Your task to perform on an android device: open app "Speedtest by Ookla" (install if not already installed) Image 0: 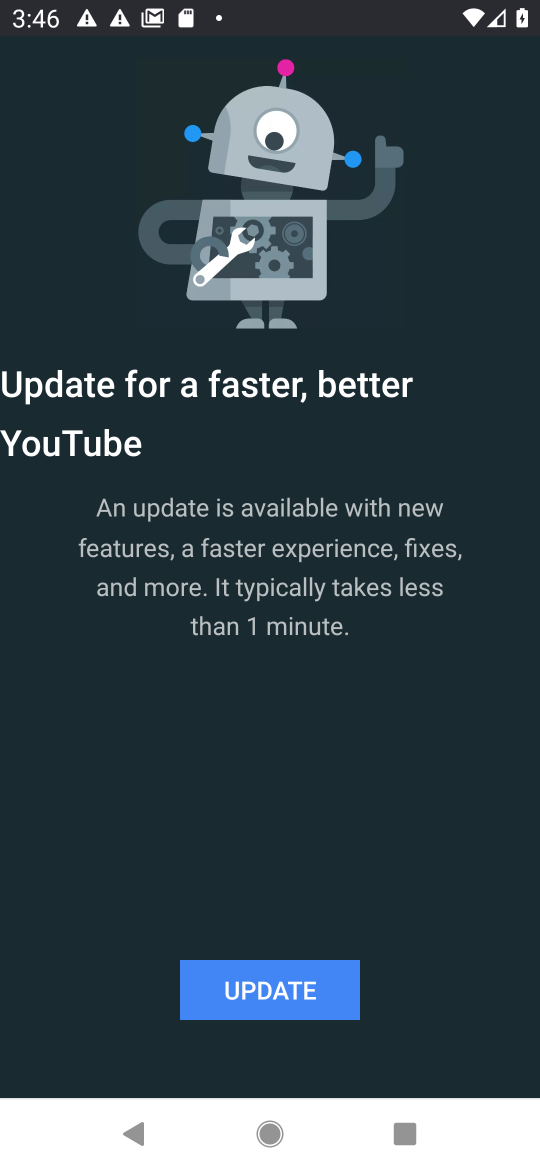
Step 0: press home button
Your task to perform on an android device: open app "Speedtest by Ookla" (install if not already installed) Image 1: 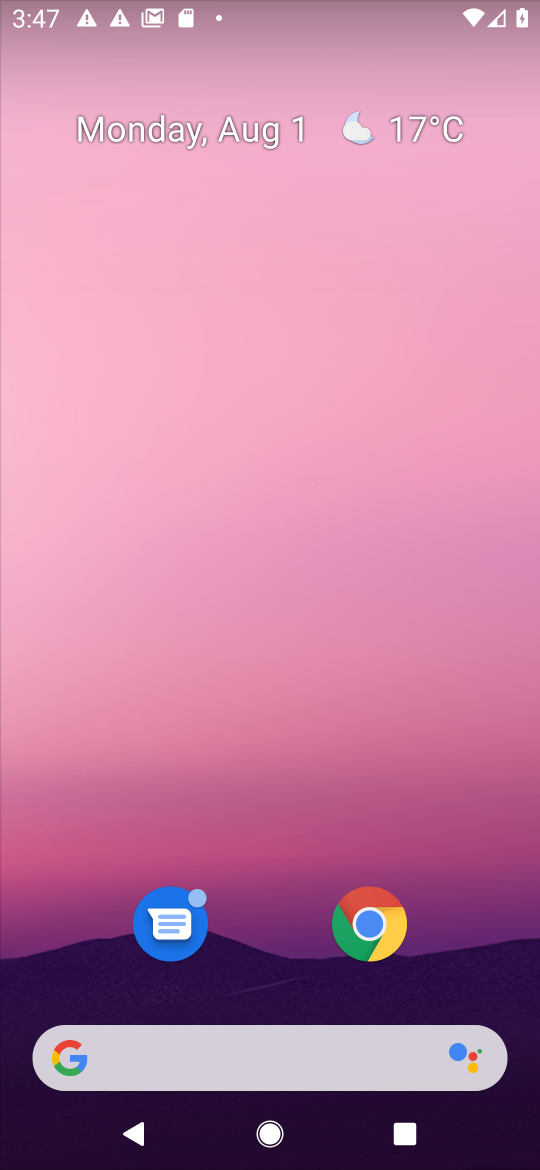
Step 1: drag from (300, 1165) to (283, 87)
Your task to perform on an android device: open app "Speedtest by Ookla" (install if not already installed) Image 2: 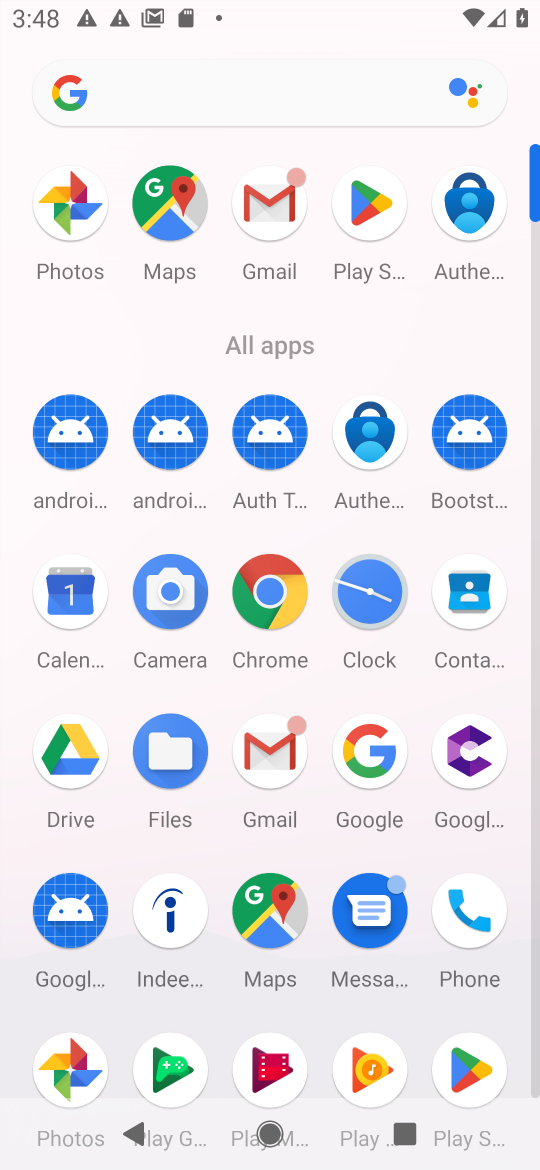
Step 2: click (459, 1078)
Your task to perform on an android device: open app "Speedtest by Ookla" (install if not already installed) Image 3: 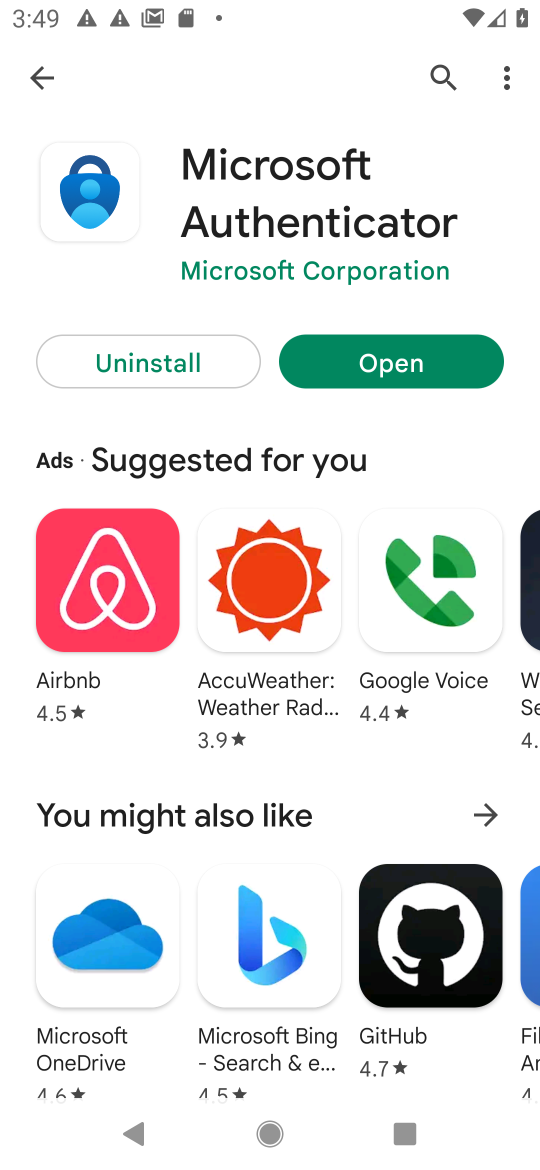
Step 3: click (443, 64)
Your task to perform on an android device: open app "Speedtest by Ookla" (install if not already installed) Image 4: 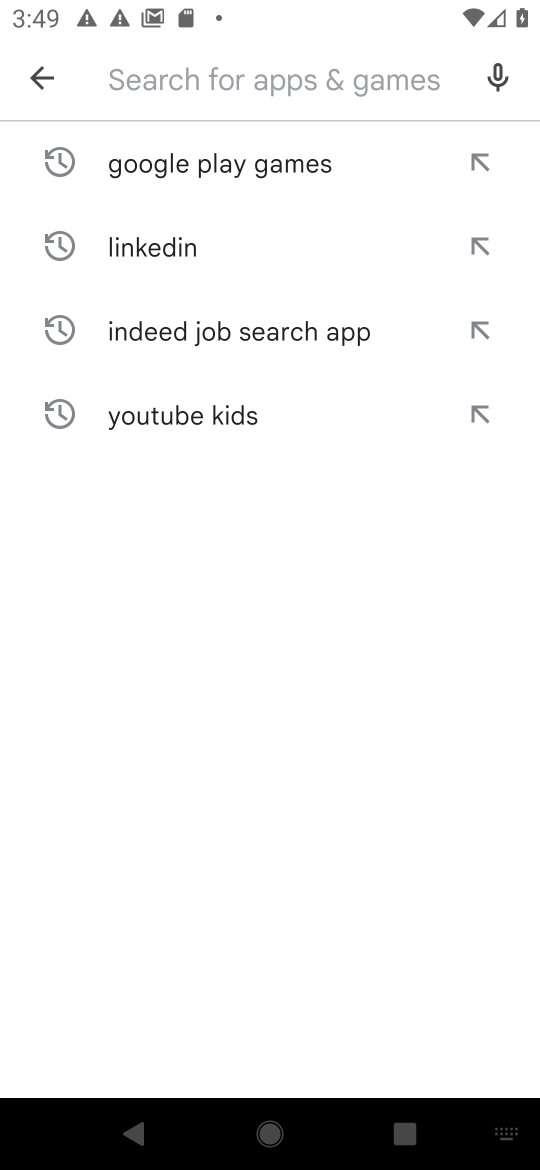
Step 4: type "Speedtest by Ookla"
Your task to perform on an android device: open app "Speedtest by Ookla" (install if not already installed) Image 5: 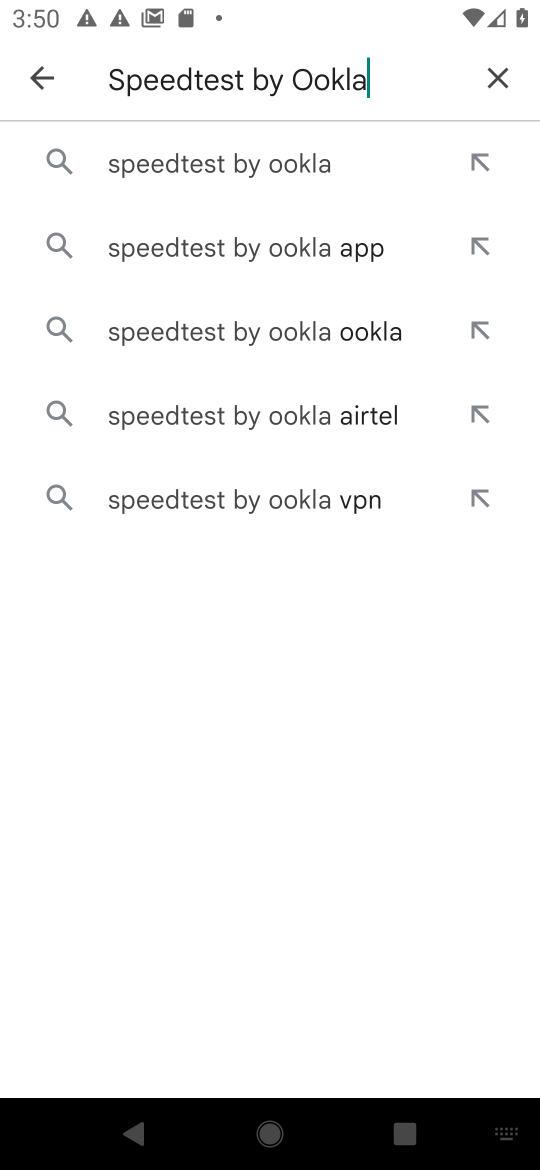
Step 5: click (239, 165)
Your task to perform on an android device: open app "Speedtest by Ookla" (install if not already installed) Image 6: 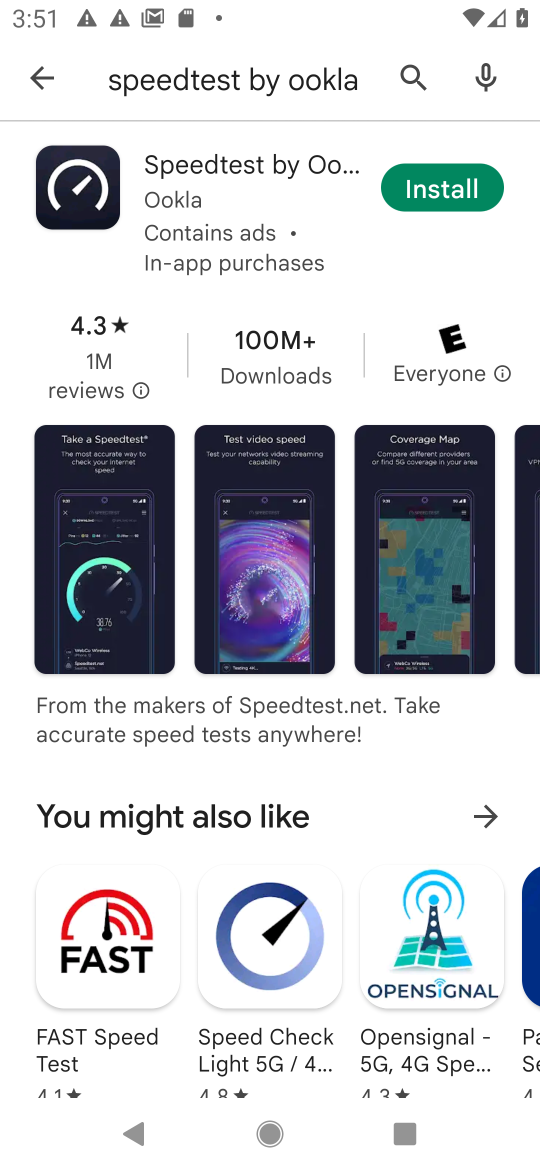
Step 6: click (431, 190)
Your task to perform on an android device: open app "Speedtest by Ookla" (install if not already installed) Image 7: 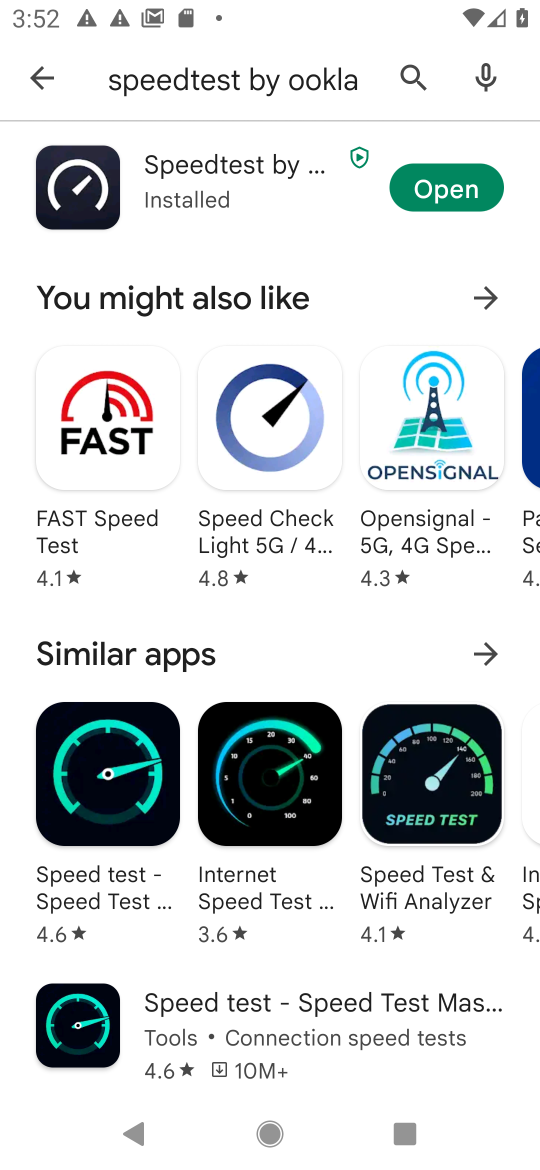
Step 7: task complete